Your task to perform on an android device: check out phone information Image 0: 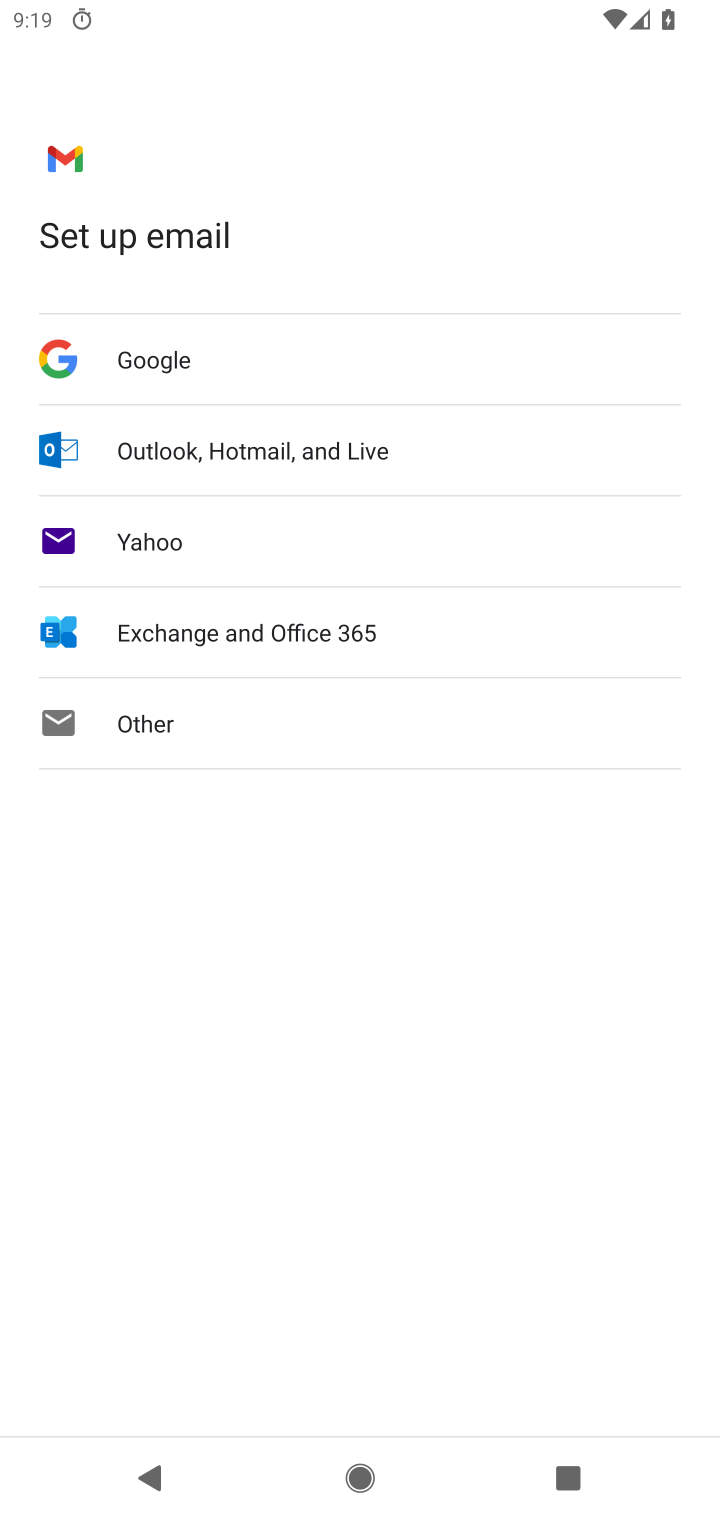
Step 0: press home button
Your task to perform on an android device: check out phone information Image 1: 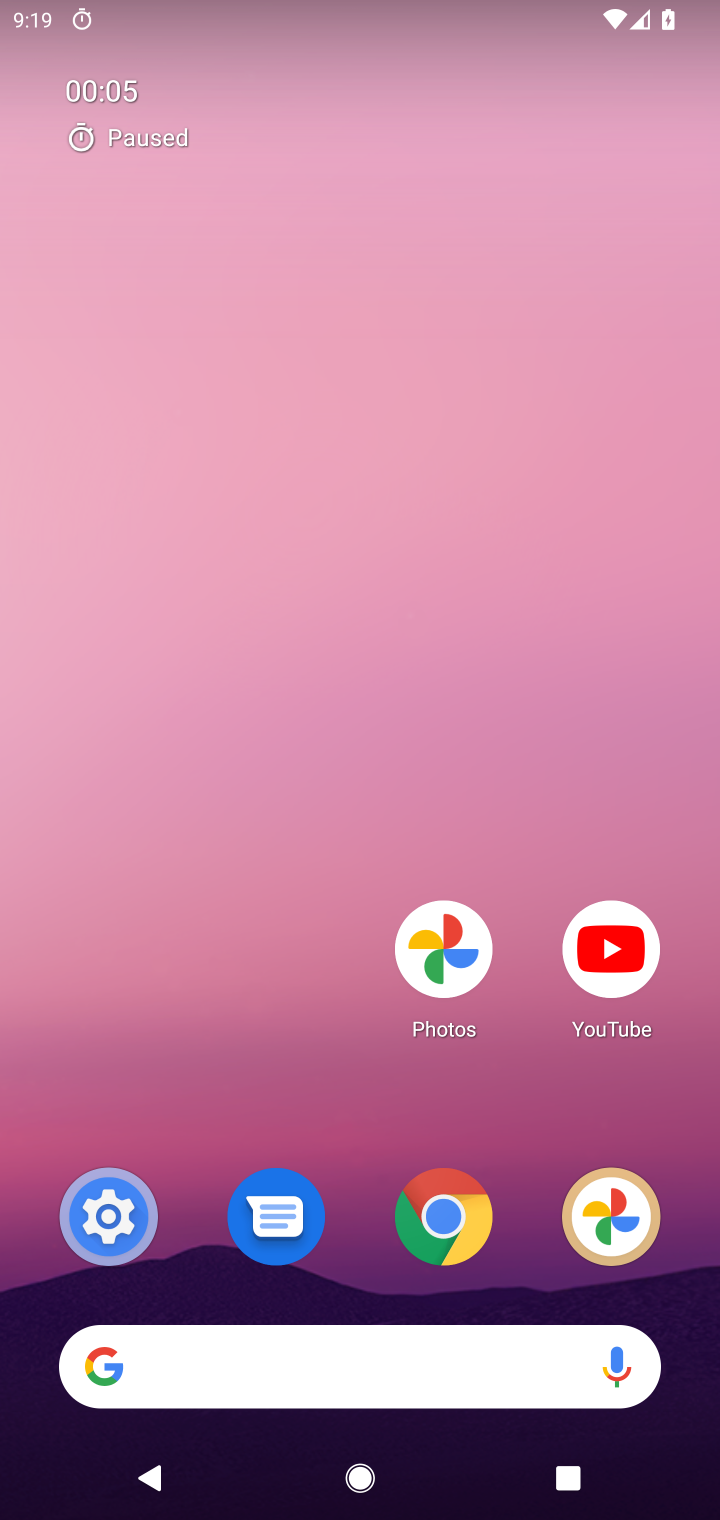
Step 1: drag from (363, 1292) to (262, 156)
Your task to perform on an android device: check out phone information Image 2: 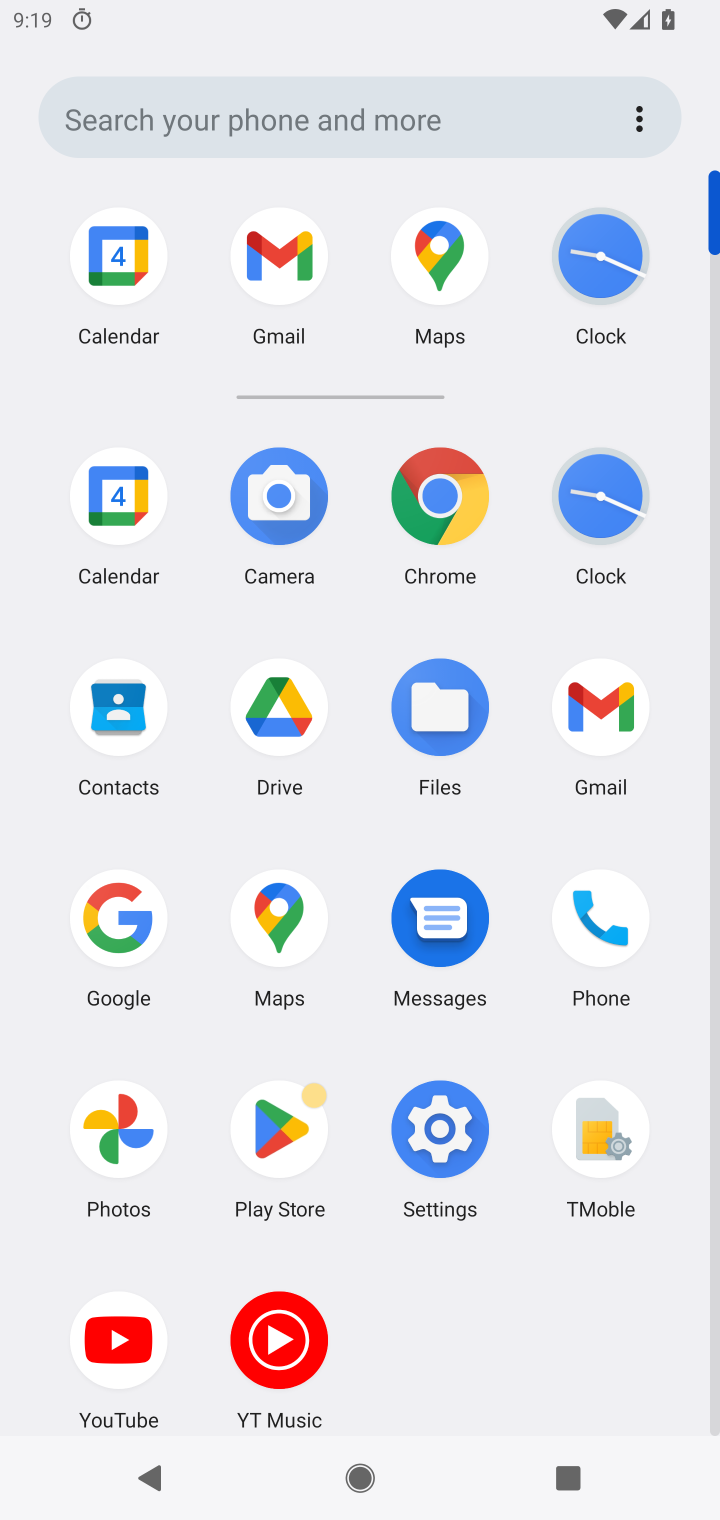
Step 2: click (454, 1120)
Your task to perform on an android device: check out phone information Image 3: 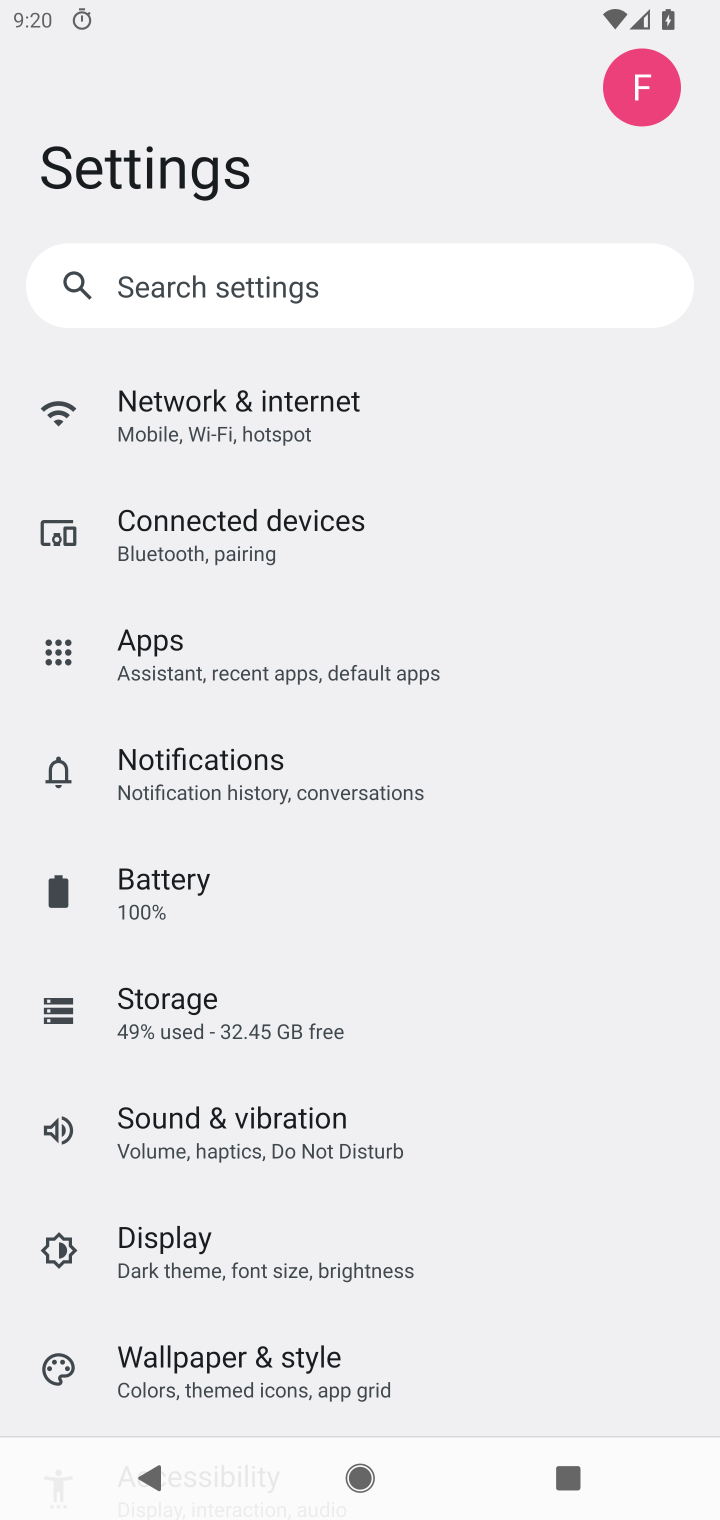
Step 3: drag from (205, 1348) to (242, 562)
Your task to perform on an android device: check out phone information Image 4: 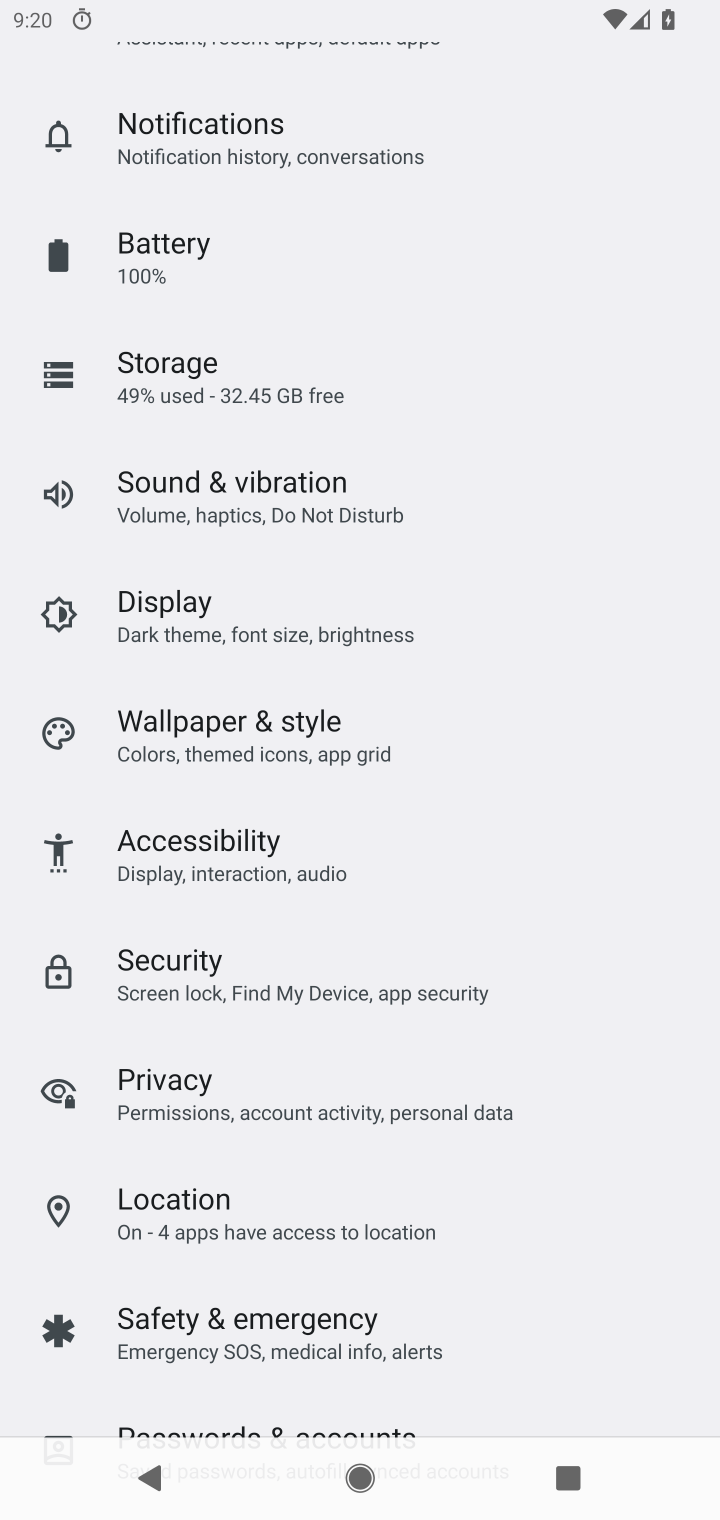
Step 4: drag from (188, 1384) to (209, 573)
Your task to perform on an android device: check out phone information Image 5: 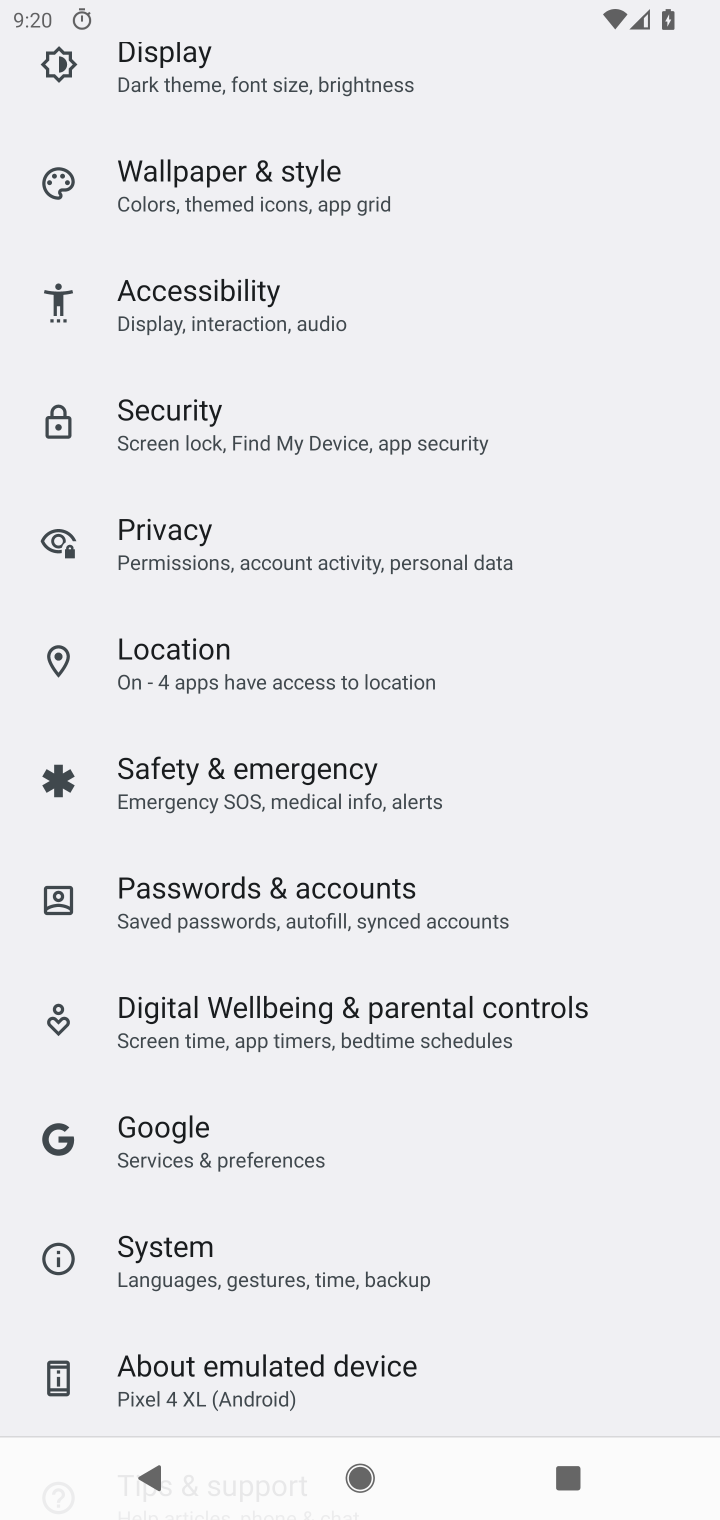
Step 5: drag from (242, 1234) to (240, 592)
Your task to perform on an android device: check out phone information Image 6: 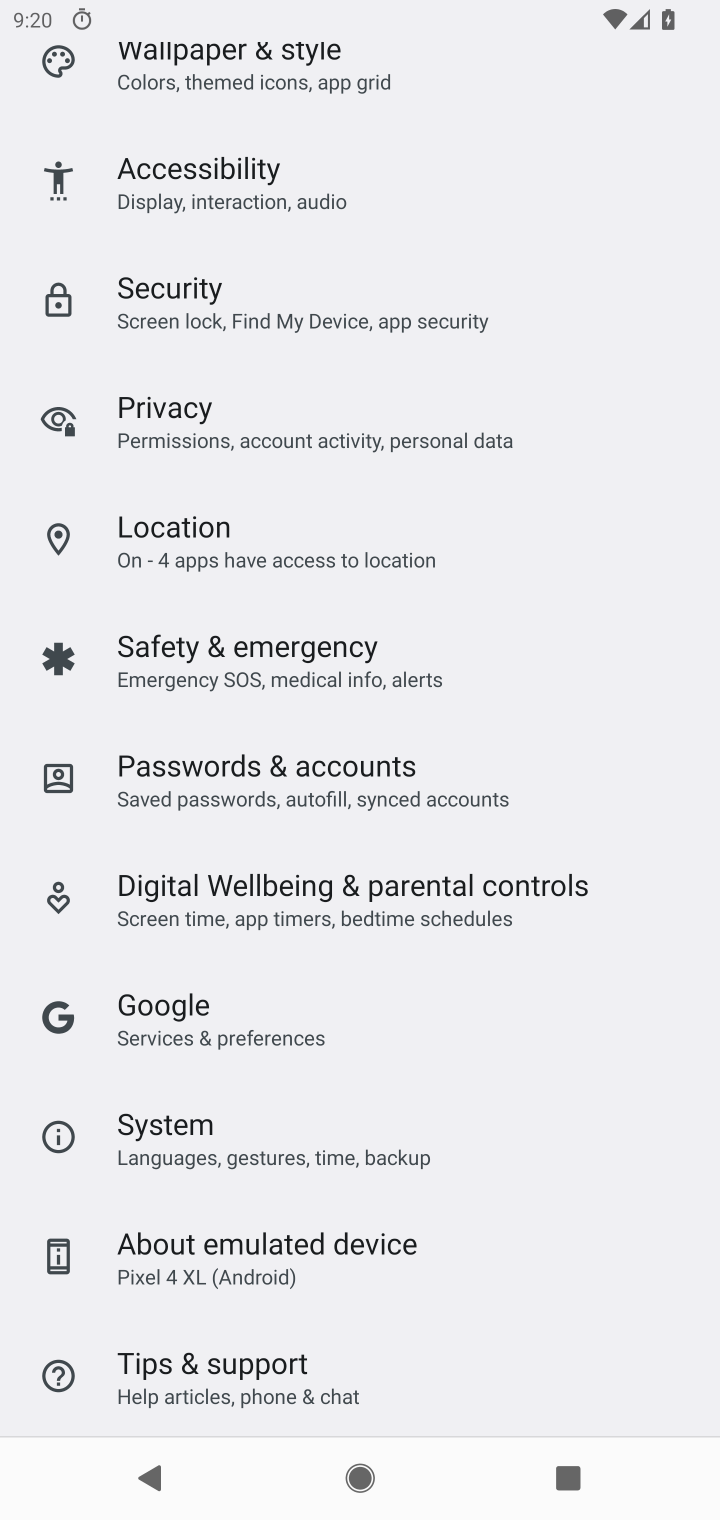
Step 6: drag from (258, 1327) to (216, 623)
Your task to perform on an android device: check out phone information Image 7: 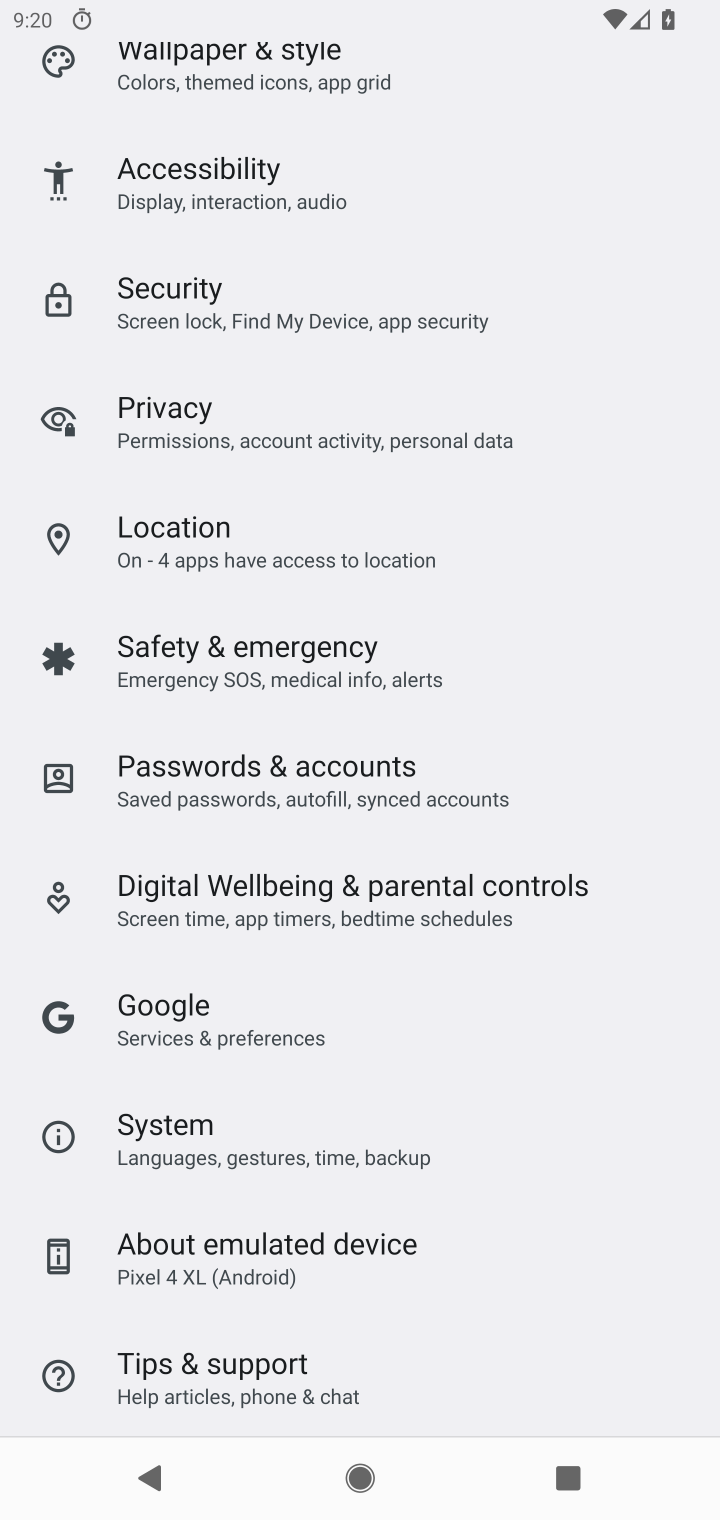
Step 7: click (172, 1233)
Your task to perform on an android device: check out phone information Image 8: 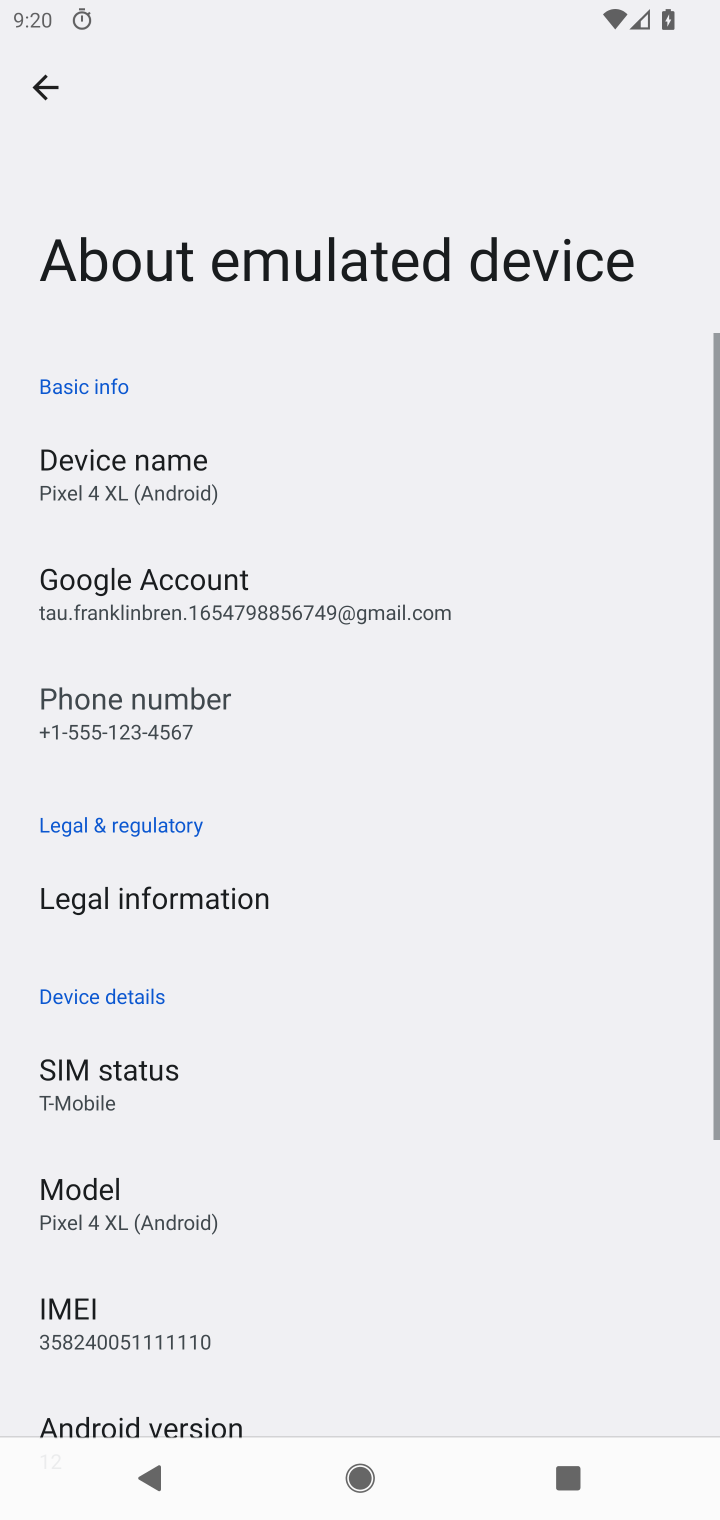
Step 8: task complete